Your task to perform on an android device: install app "Pluto TV - Live TV and Movies" Image 0: 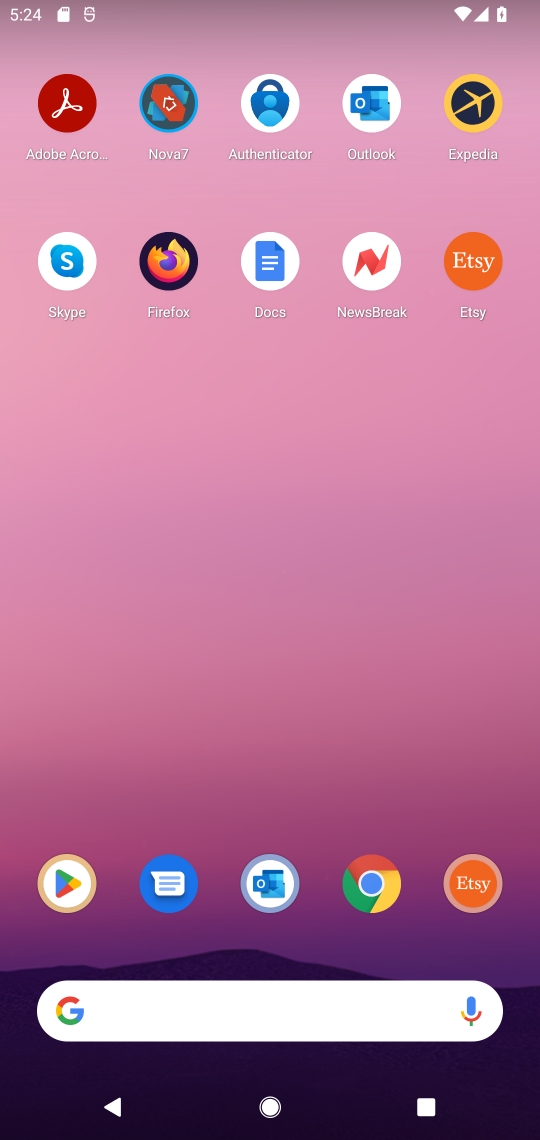
Step 0: drag from (266, 963) to (295, 682)
Your task to perform on an android device: install app "Pluto TV - Live TV and Movies" Image 1: 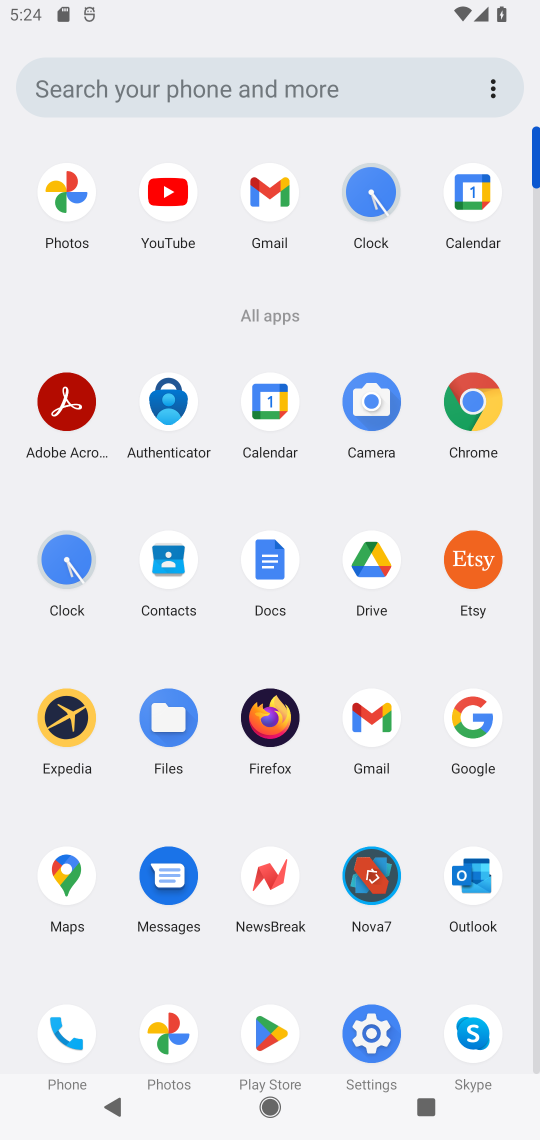
Step 1: click (276, 1037)
Your task to perform on an android device: install app "Pluto TV - Live TV and Movies" Image 2: 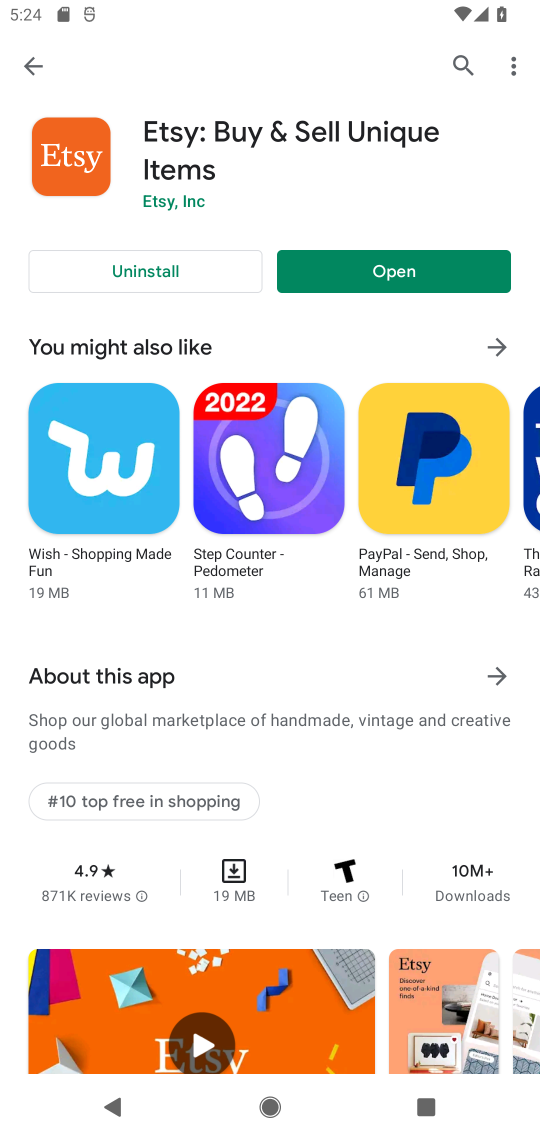
Step 2: click (27, 56)
Your task to perform on an android device: install app "Pluto TV - Live TV and Movies" Image 3: 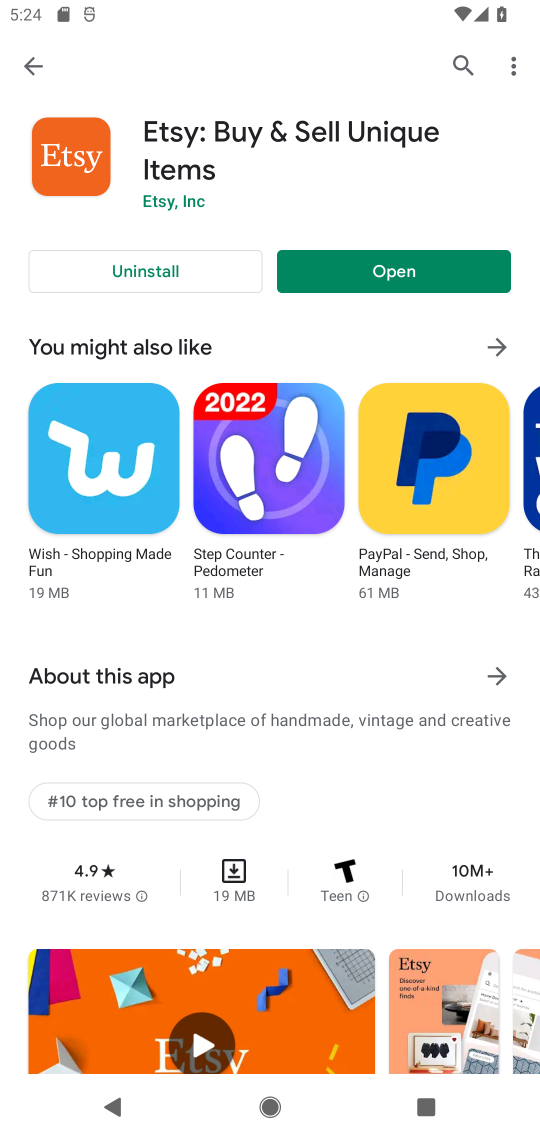
Step 3: click (27, 71)
Your task to perform on an android device: install app "Pluto TV - Live TV and Movies" Image 4: 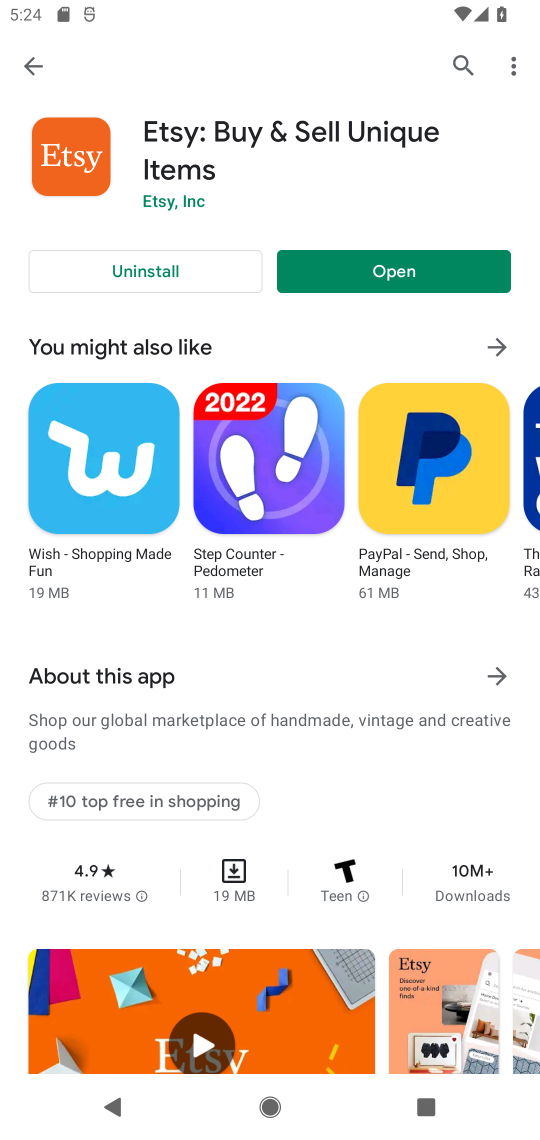
Step 4: click (27, 67)
Your task to perform on an android device: install app "Pluto TV - Live TV and Movies" Image 5: 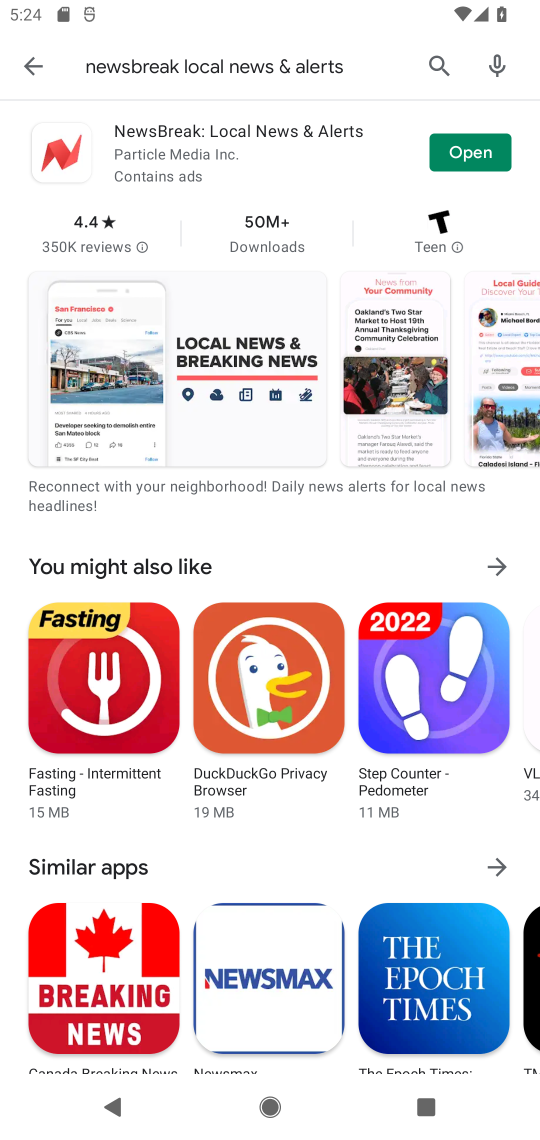
Step 5: click (432, 63)
Your task to perform on an android device: install app "Pluto TV - Live TV and Movies" Image 6: 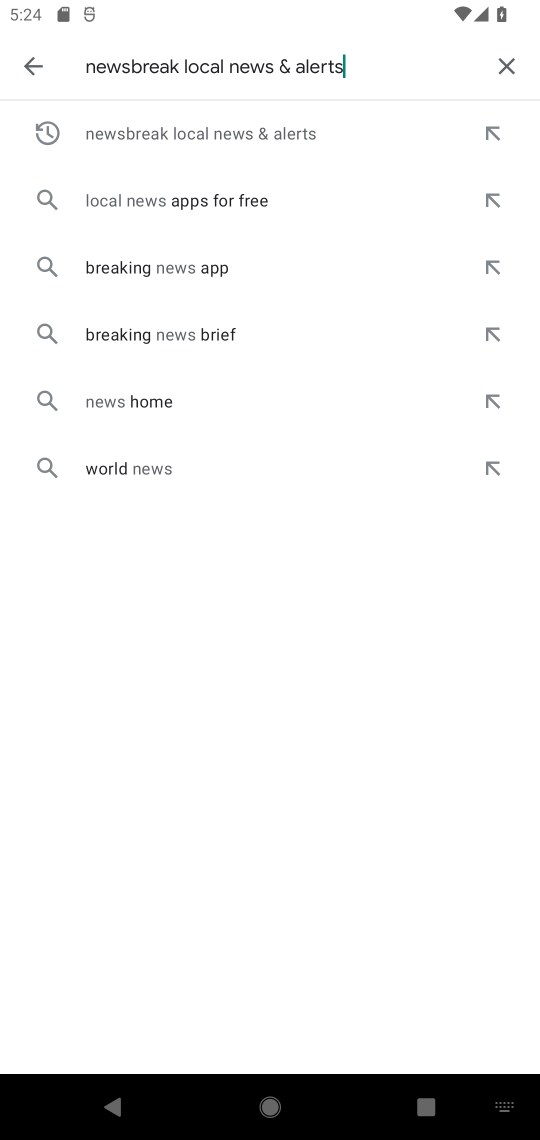
Step 6: click (494, 67)
Your task to perform on an android device: install app "Pluto TV - Live TV and Movies" Image 7: 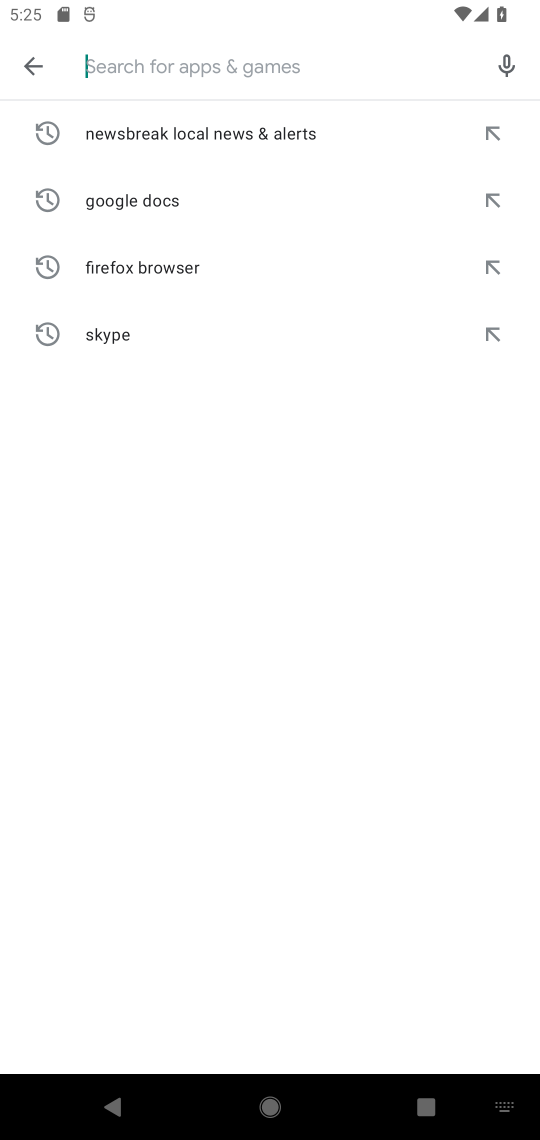
Step 7: type "Pluto TV - Live TV and Movies"
Your task to perform on an android device: install app "Pluto TV - Live TV and Movies" Image 8: 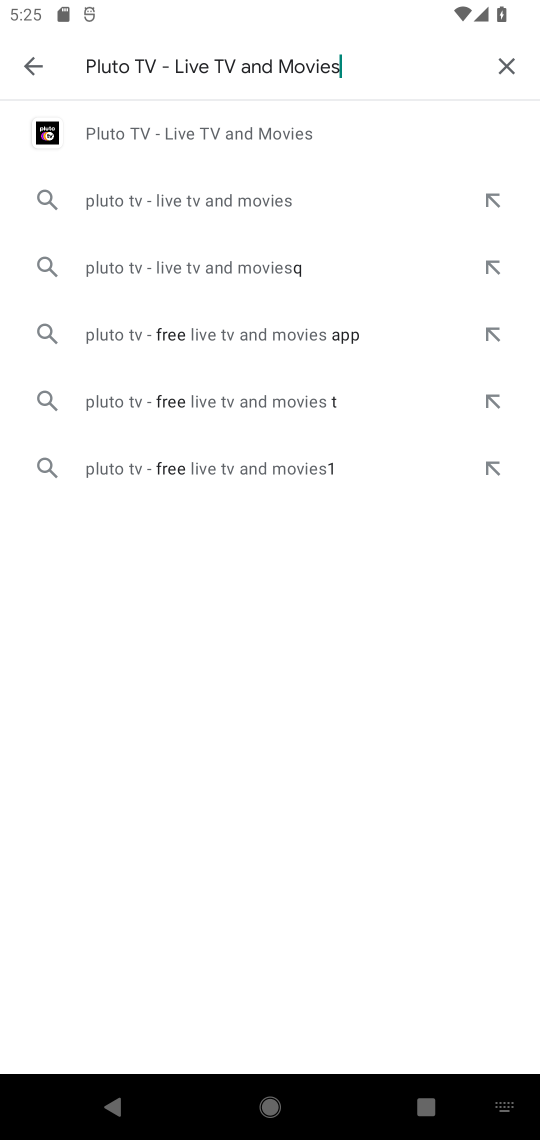
Step 8: click (168, 136)
Your task to perform on an android device: install app "Pluto TV - Live TV and Movies" Image 9: 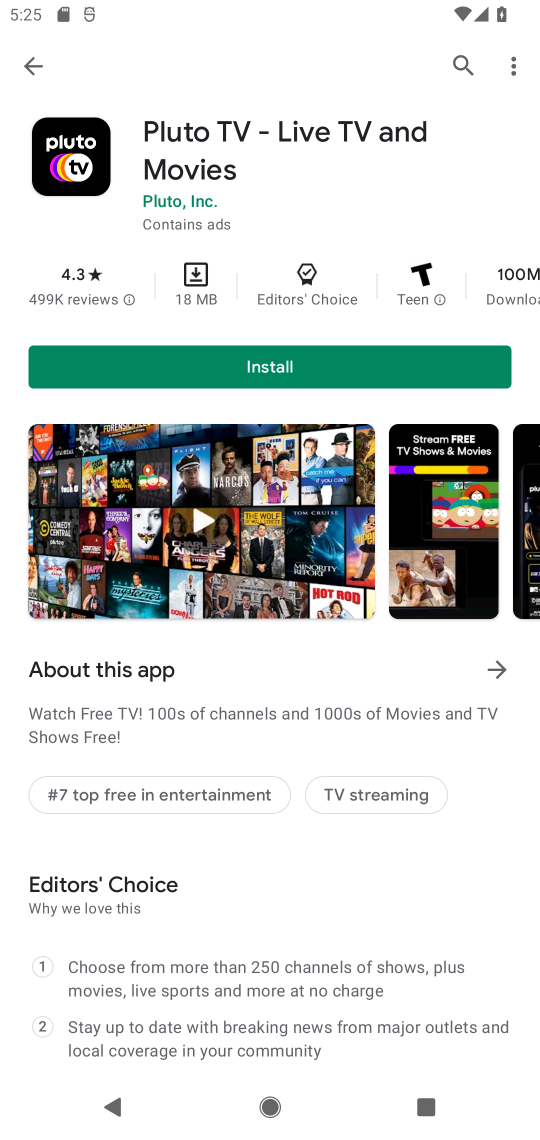
Step 9: click (210, 369)
Your task to perform on an android device: install app "Pluto TV - Live TV and Movies" Image 10: 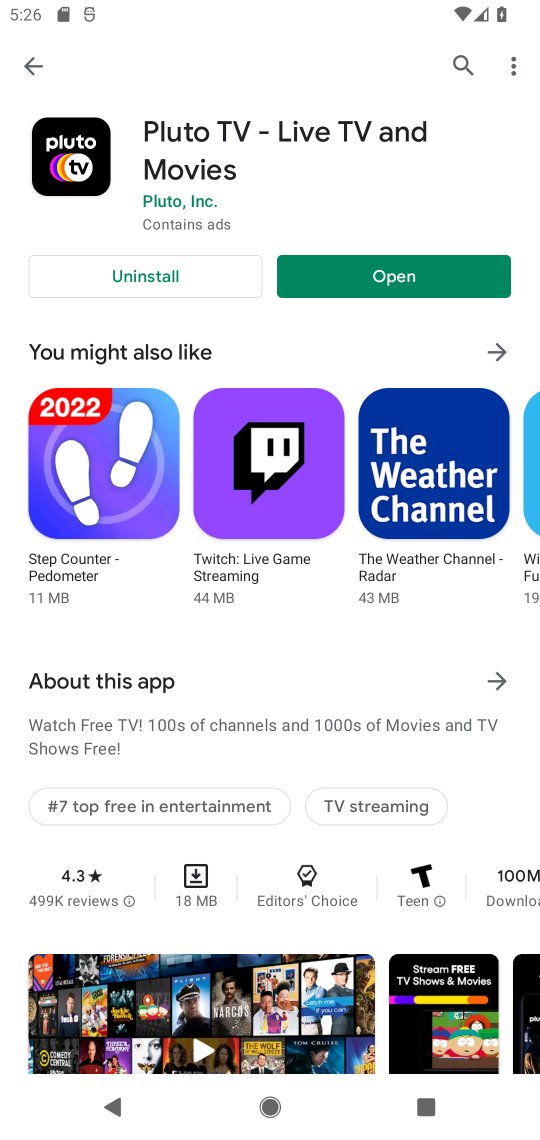
Step 10: task complete